Your task to perform on an android device: Is it going to rain tomorrow? Image 0: 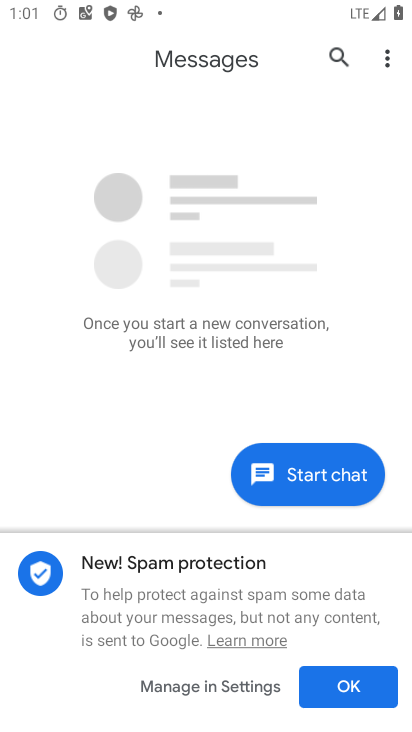
Step 0: press home button
Your task to perform on an android device: Is it going to rain tomorrow? Image 1: 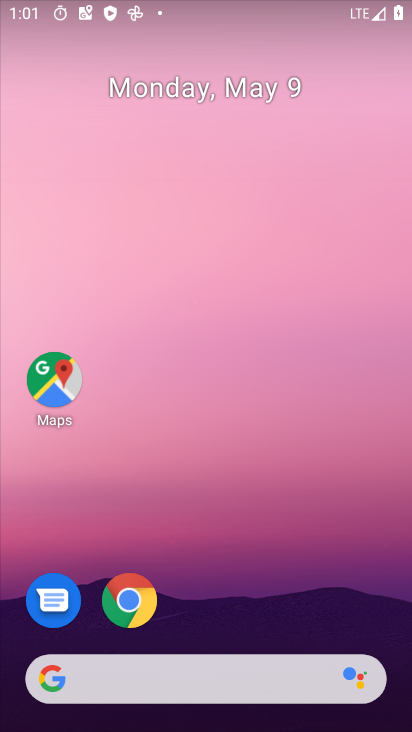
Step 1: drag from (307, 568) to (323, 58)
Your task to perform on an android device: Is it going to rain tomorrow? Image 2: 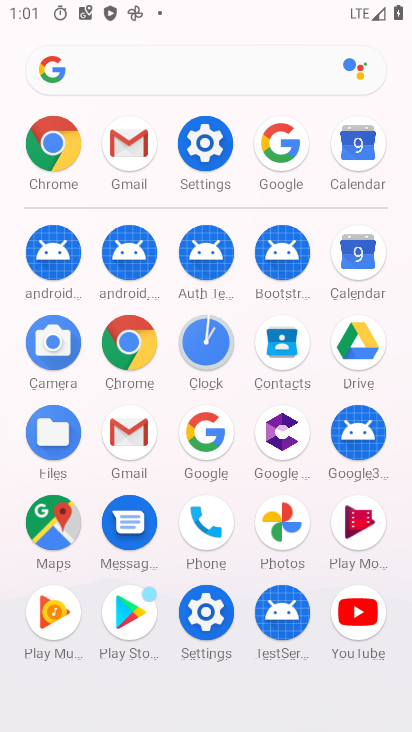
Step 2: click (200, 447)
Your task to perform on an android device: Is it going to rain tomorrow? Image 3: 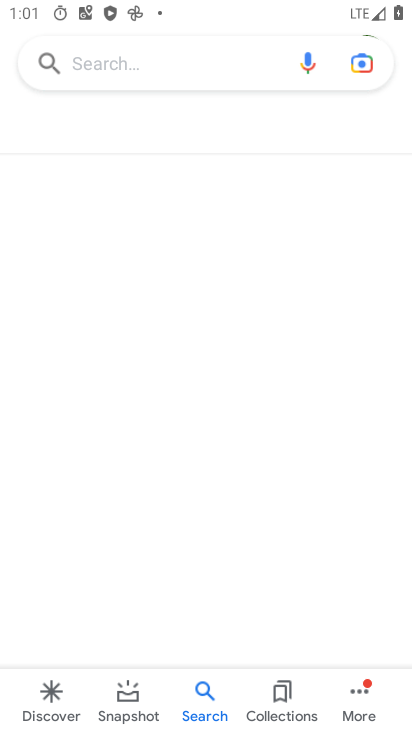
Step 3: click (192, 72)
Your task to perform on an android device: Is it going to rain tomorrow? Image 4: 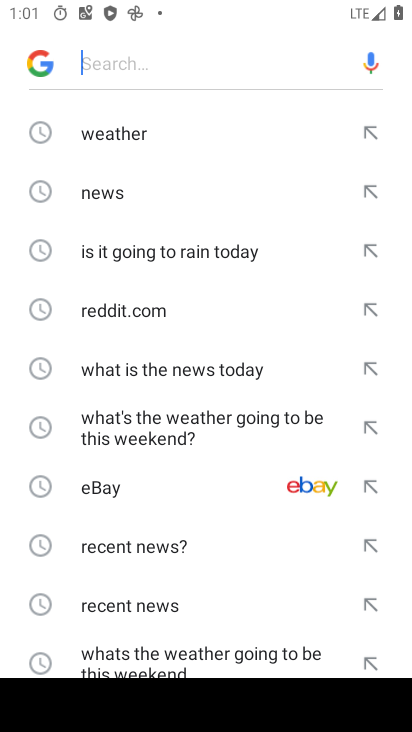
Step 4: click (187, 140)
Your task to perform on an android device: Is it going to rain tomorrow? Image 5: 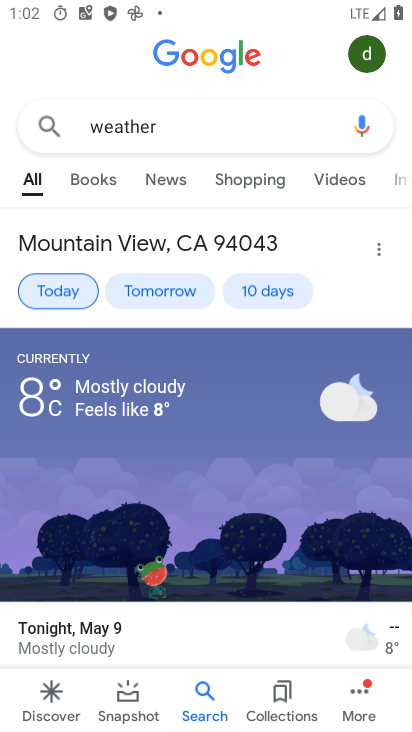
Step 5: click (153, 282)
Your task to perform on an android device: Is it going to rain tomorrow? Image 6: 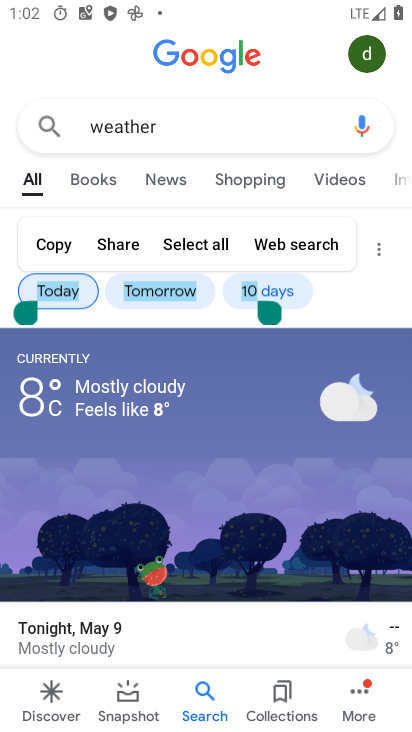
Step 6: click (160, 301)
Your task to perform on an android device: Is it going to rain tomorrow? Image 7: 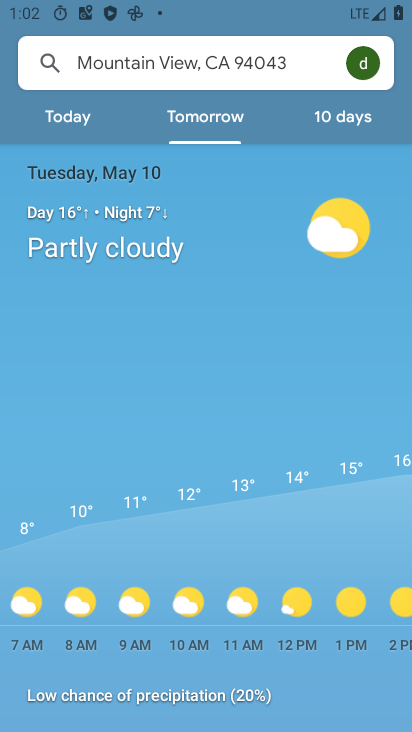
Step 7: task complete